Your task to perform on an android device: change the clock style Image 0: 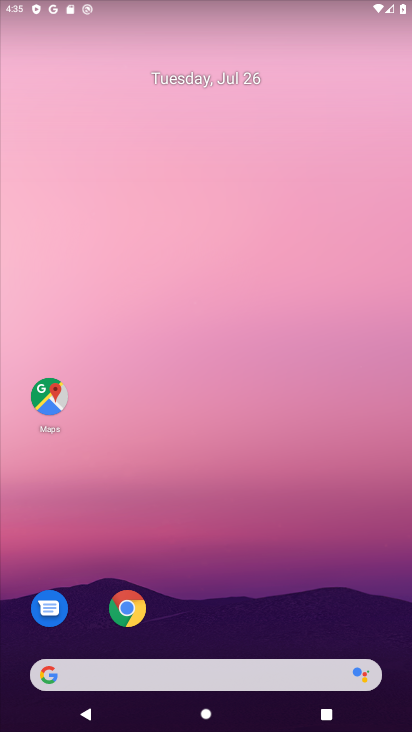
Step 0: drag from (230, 660) to (279, 148)
Your task to perform on an android device: change the clock style Image 1: 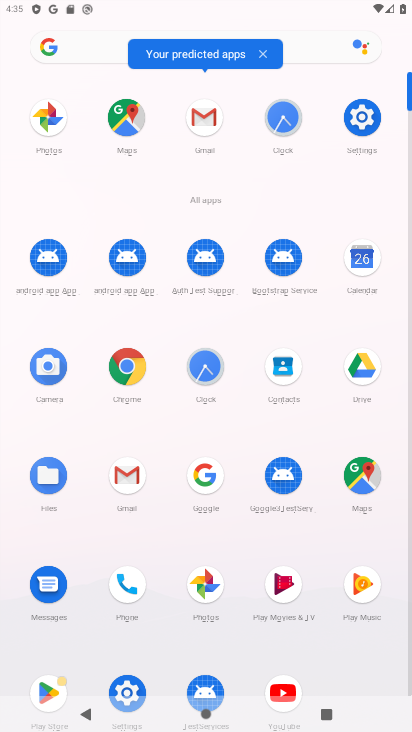
Step 1: click (279, 118)
Your task to perform on an android device: change the clock style Image 2: 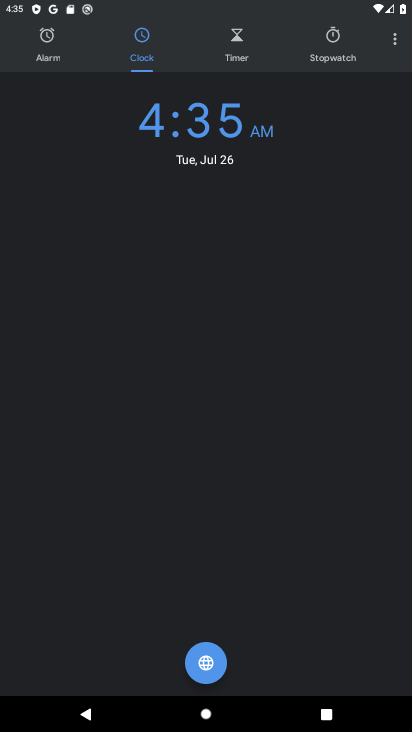
Step 2: click (389, 40)
Your task to perform on an android device: change the clock style Image 3: 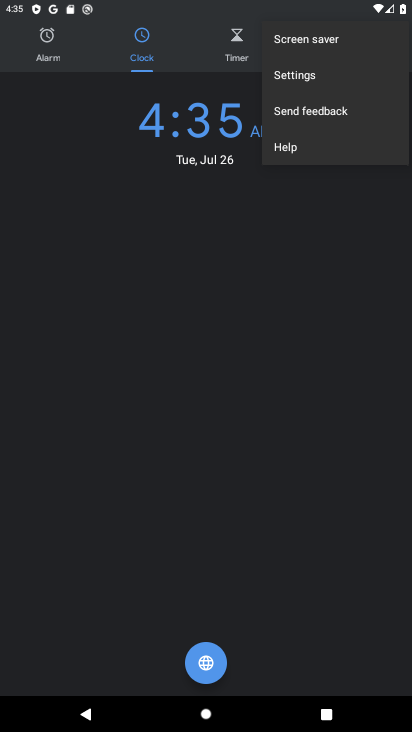
Step 3: click (309, 80)
Your task to perform on an android device: change the clock style Image 4: 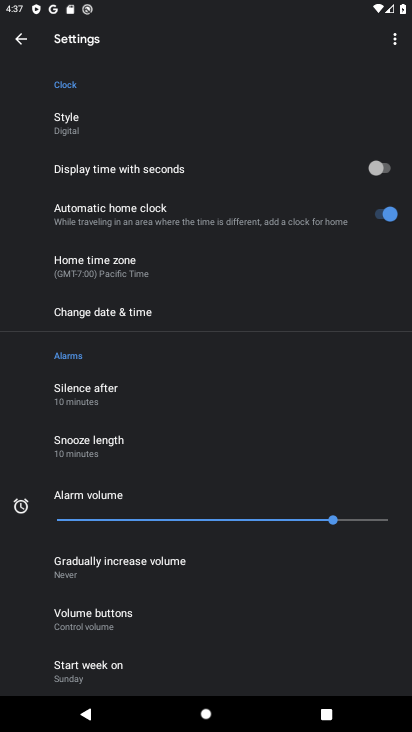
Step 4: task complete